Your task to perform on an android device: check data usage Image 0: 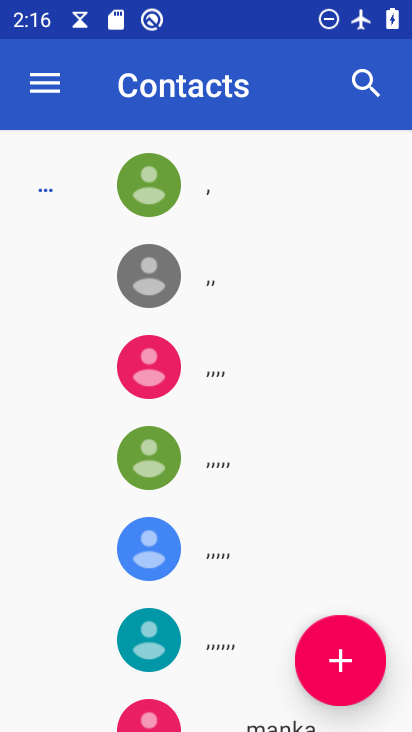
Step 0: press home button
Your task to perform on an android device: check data usage Image 1: 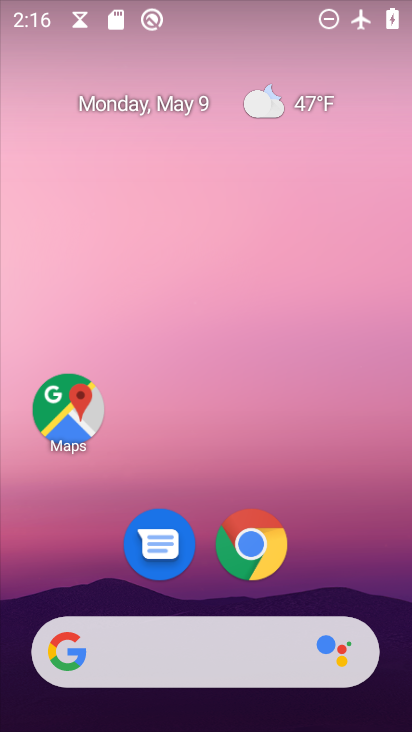
Step 1: drag from (401, 511) to (366, 106)
Your task to perform on an android device: check data usage Image 2: 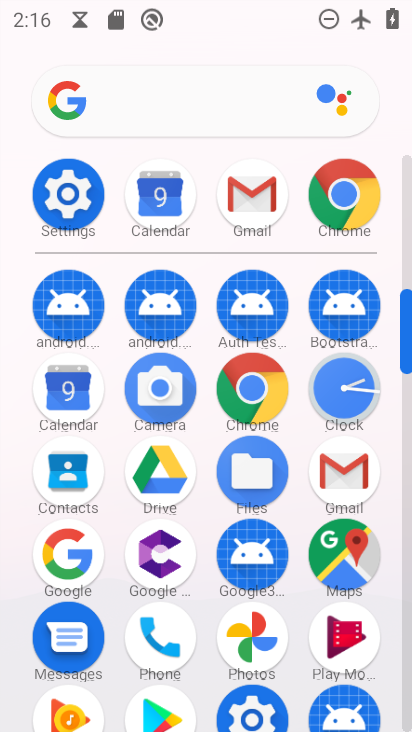
Step 2: click (86, 203)
Your task to perform on an android device: check data usage Image 3: 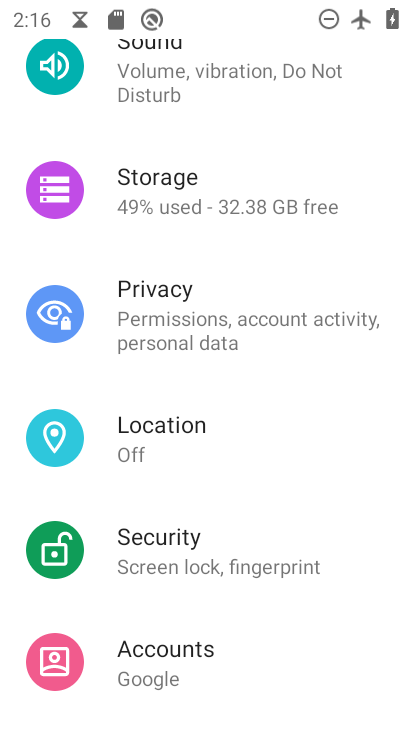
Step 3: drag from (218, 200) to (251, 551)
Your task to perform on an android device: check data usage Image 4: 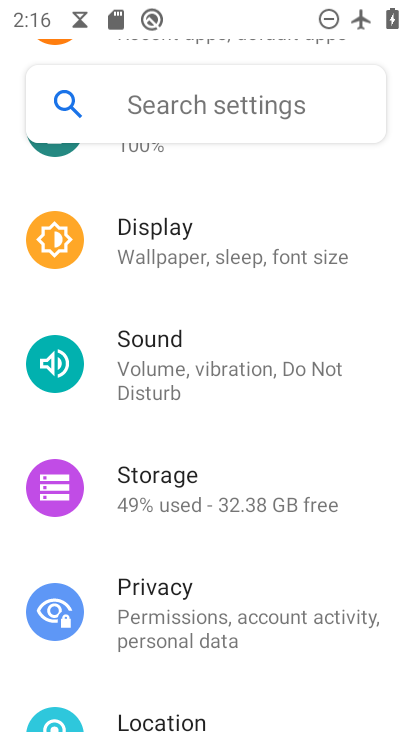
Step 4: drag from (293, 285) to (322, 611)
Your task to perform on an android device: check data usage Image 5: 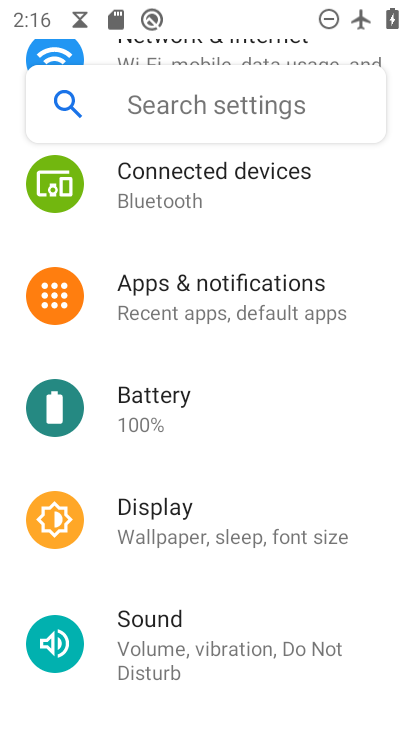
Step 5: drag from (291, 278) to (309, 634)
Your task to perform on an android device: check data usage Image 6: 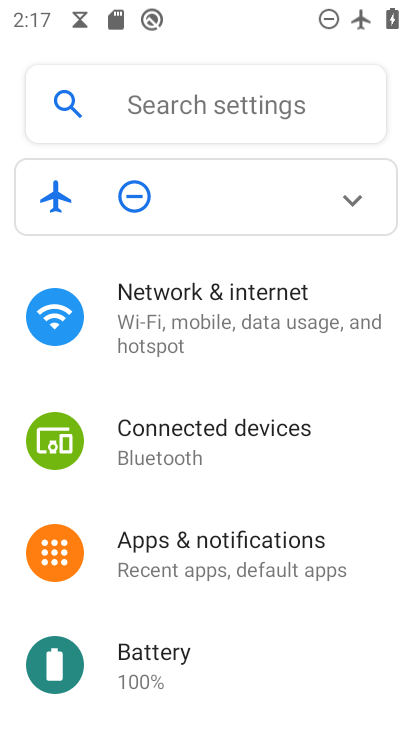
Step 6: click (249, 298)
Your task to perform on an android device: check data usage Image 7: 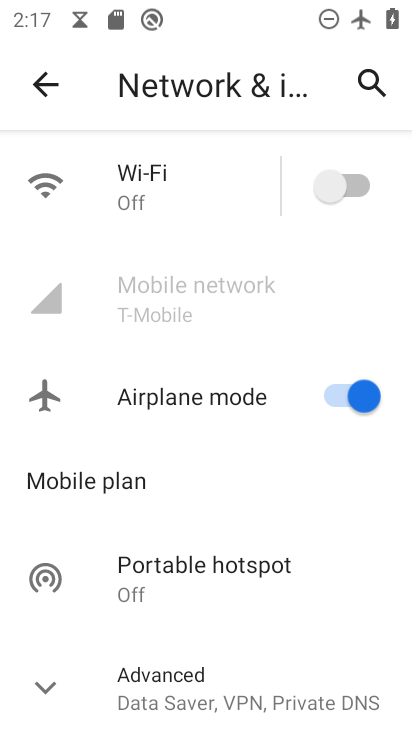
Step 7: click (249, 302)
Your task to perform on an android device: check data usage Image 8: 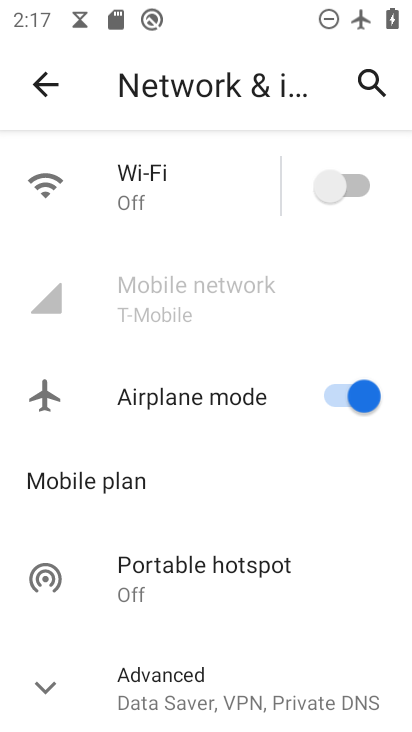
Step 8: task complete